Your task to perform on an android device: toggle location history Image 0: 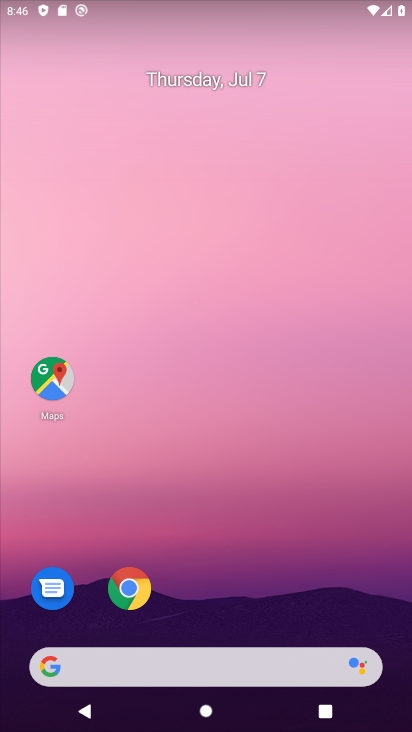
Step 0: press home button
Your task to perform on an android device: toggle location history Image 1: 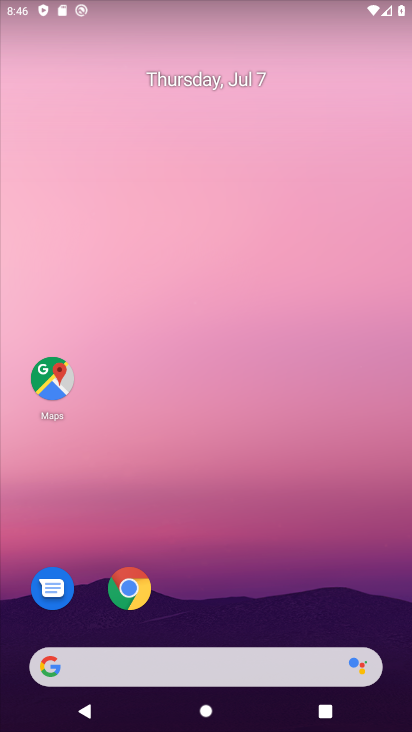
Step 1: drag from (230, 634) to (227, 27)
Your task to perform on an android device: toggle location history Image 2: 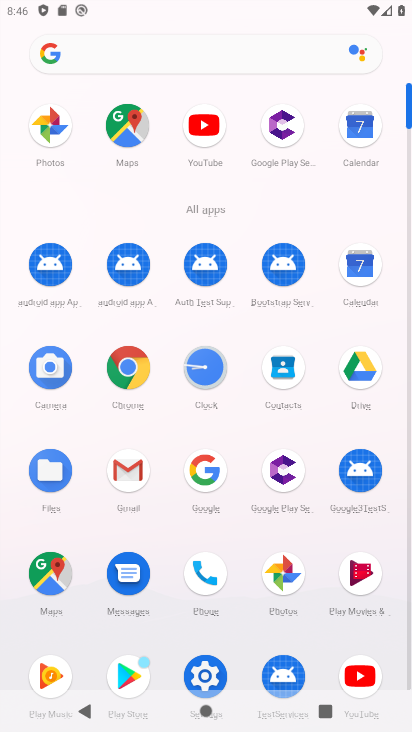
Step 2: click (200, 664)
Your task to perform on an android device: toggle location history Image 3: 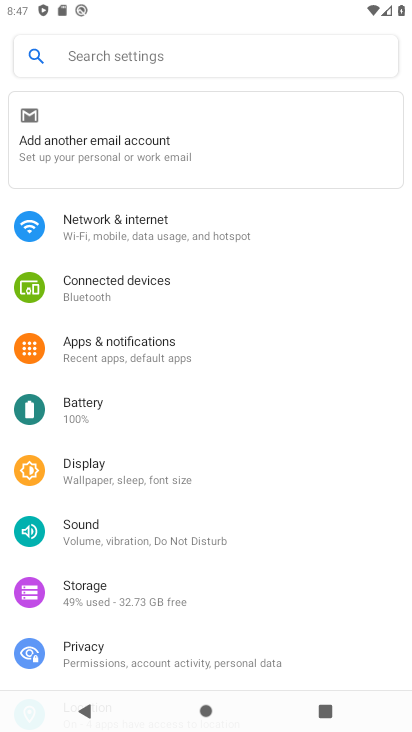
Step 3: drag from (143, 628) to (199, 172)
Your task to perform on an android device: toggle location history Image 4: 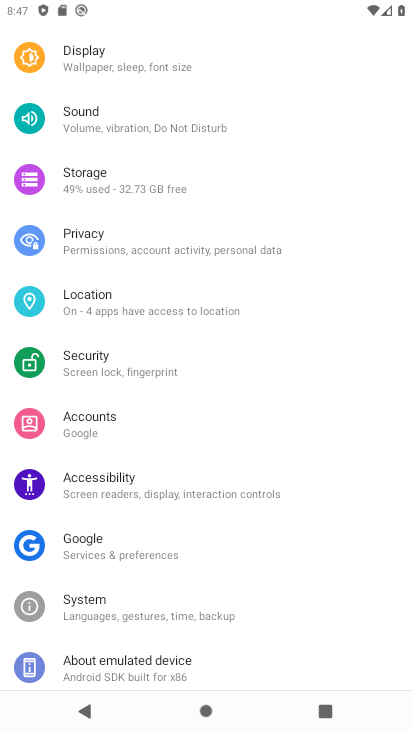
Step 4: click (130, 293)
Your task to perform on an android device: toggle location history Image 5: 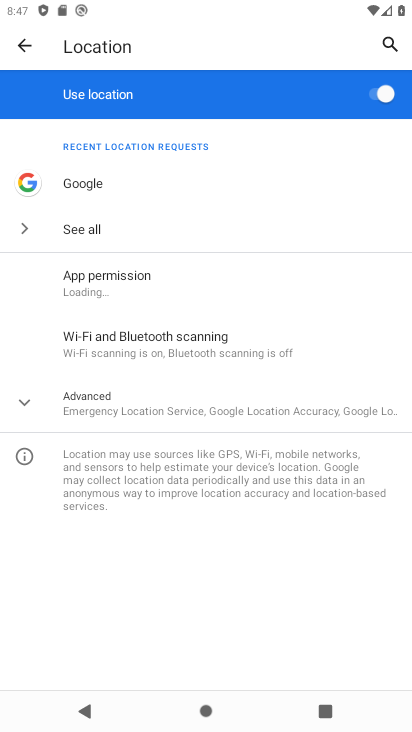
Step 5: click (34, 407)
Your task to perform on an android device: toggle location history Image 6: 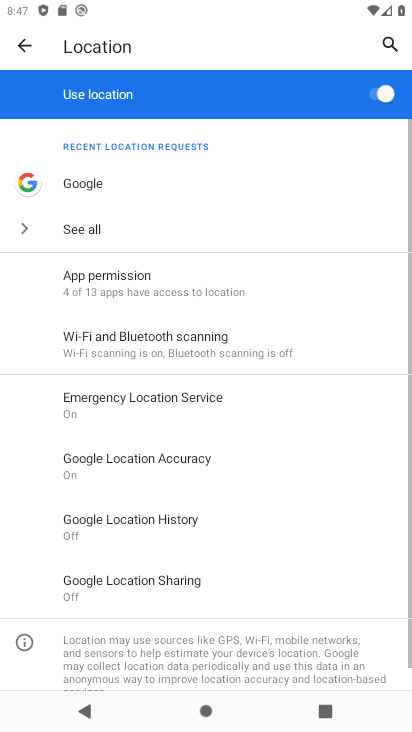
Step 6: click (203, 521)
Your task to perform on an android device: toggle location history Image 7: 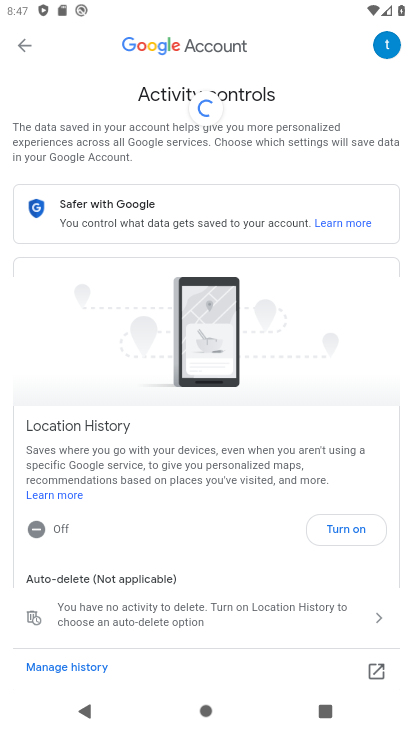
Step 7: click (348, 531)
Your task to perform on an android device: toggle location history Image 8: 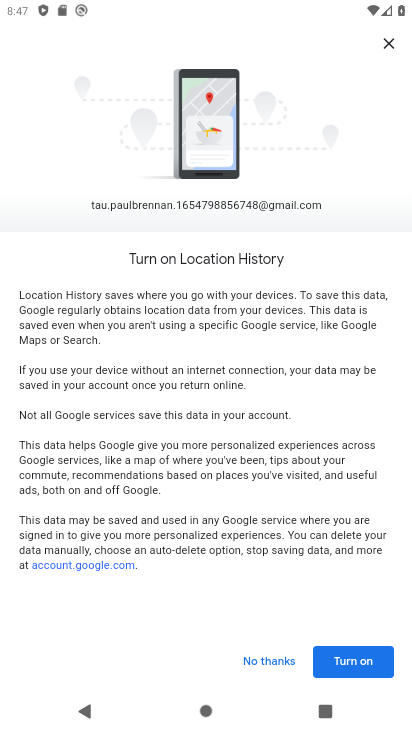
Step 8: click (367, 660)
Your task to perform on an android device: toggle location history Image 9: 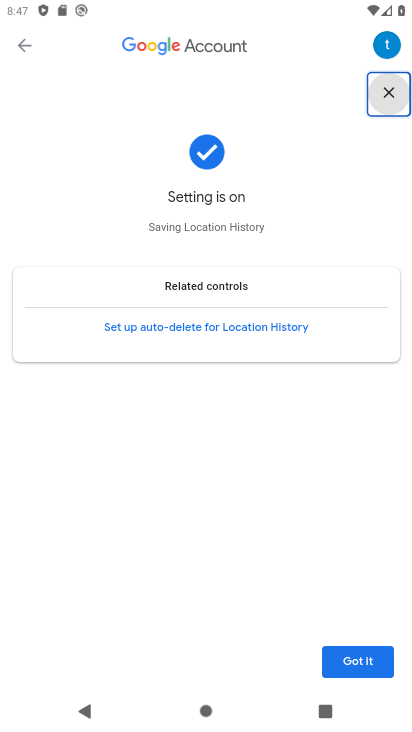
Step 9: click (357, 665)
Your task to perform on an android device: toggle location history Image 10: 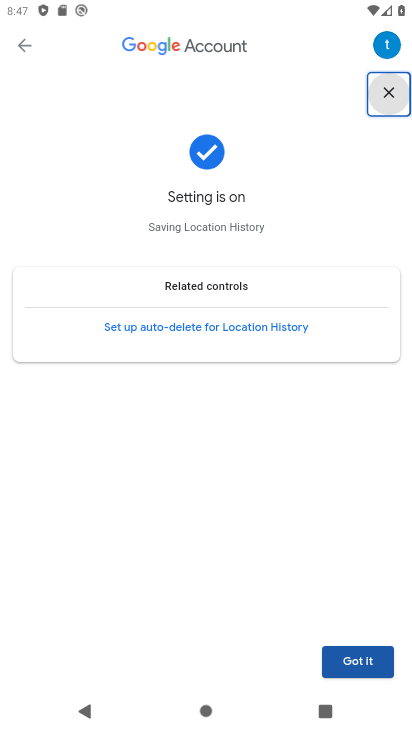
Step 10: task complete